Your task to perform on an android device: change notification settings in the gmail app Image 0: 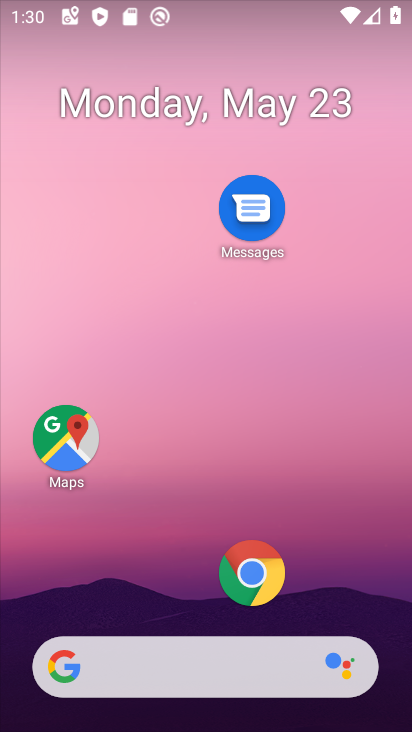
Step 0: drag from (146, 530) to (244, 85)
Your task to perform on an android device: change notification settings in the gmail app Image 1: 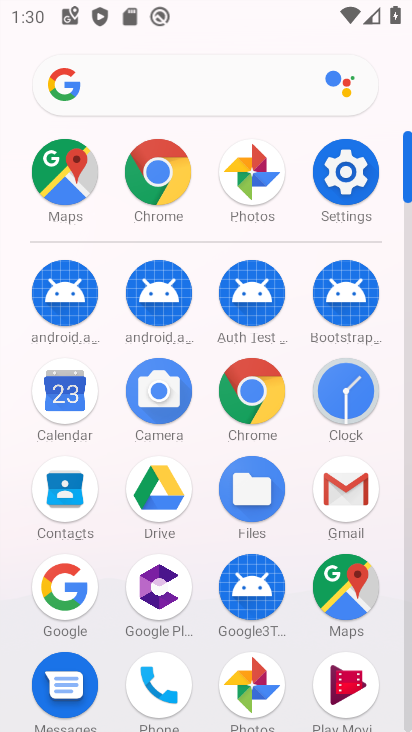
Step 1: click (350, 493)
Your task to perform on an android device: change notification settings in the gmail app Image 2: 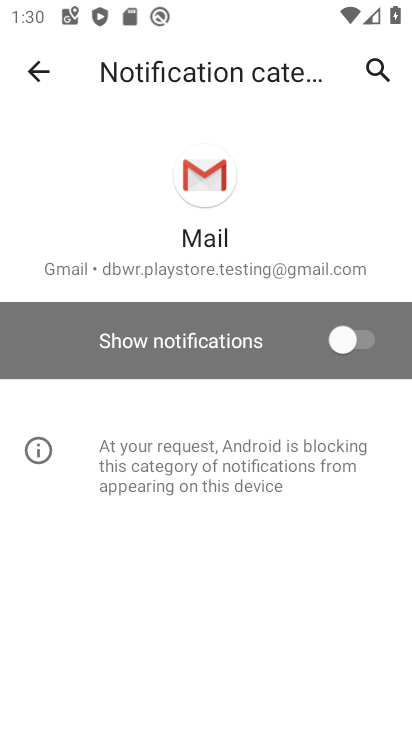
Step 2: click (364, 345)
Your task to perform on an android device: change notification settings in the gmail app Image 3: 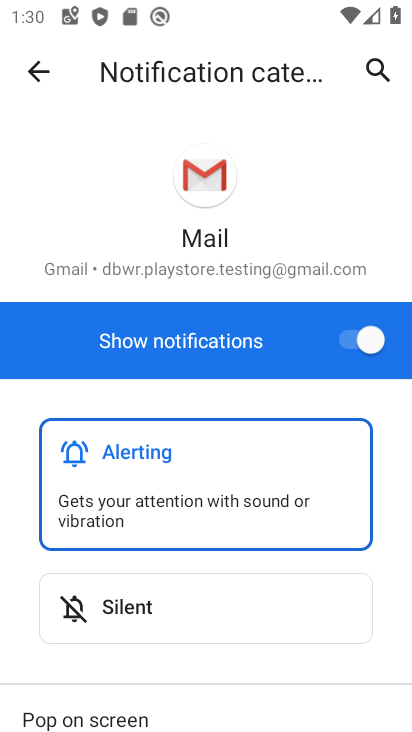
Step 3: task complete